Your task to perform on an android device: Open Google Chrome and click the shortcut for Amazon.com Image 0: 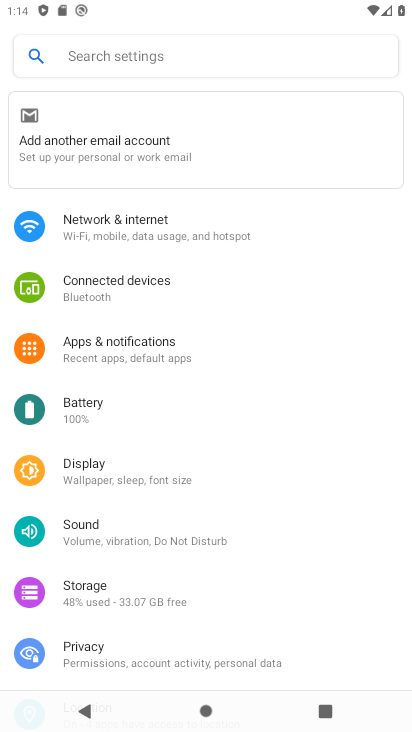
Step 0: press back button
Your task to perform on an android device: Open Google Chrome and click the shortcut for Amazon.com Image 1: 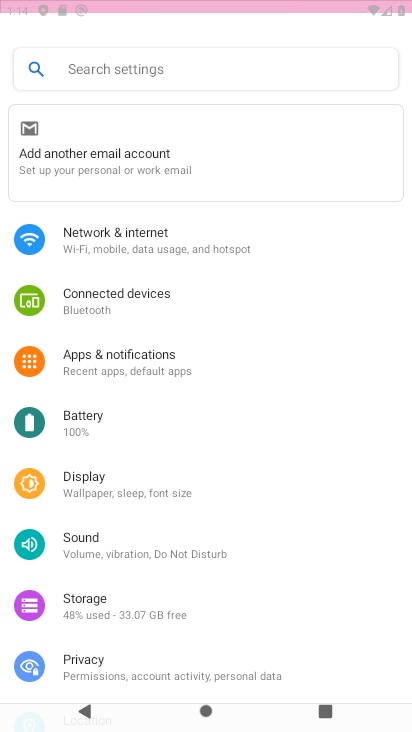
Step 1: press home button
Your task to perform on an android device: Open Google Chrome and click the shortcut for Amazon.com Image 2: 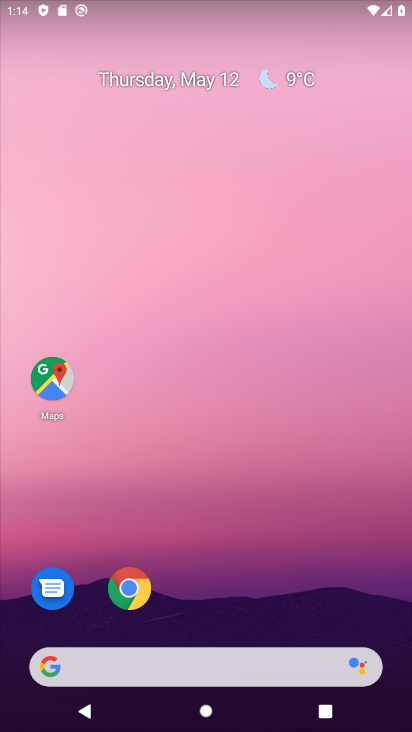
Step 2: click (138, 592)
Your task to perform on an android device: Open Google Chrome and click the shortcut for Amazon.com Image 3: 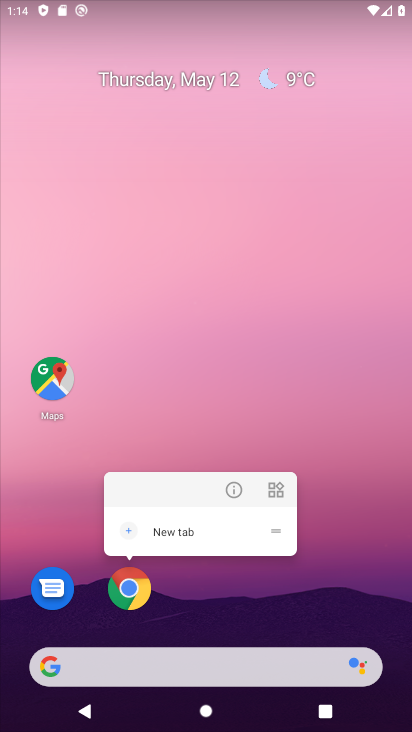
Step 3: click (138, 592)
Your task to perform on an android device: Open Google Chrome and click the shortcut for Amazon.com Image 4: 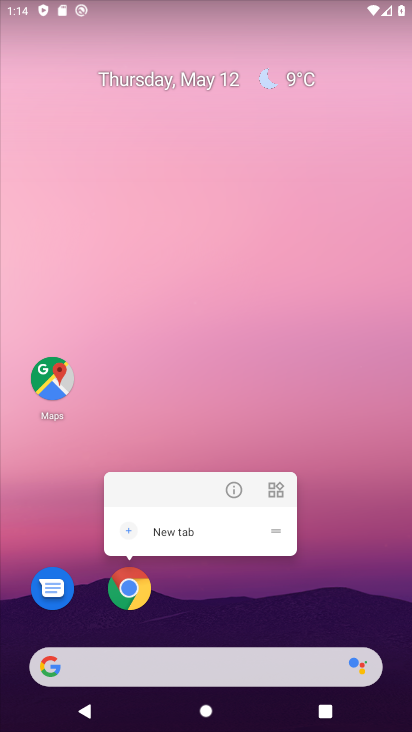
Step 4: click (138, 592)
Your task to perform on an android device: Open Google Chrome and click the shortcut for Amazon.com Image 5: 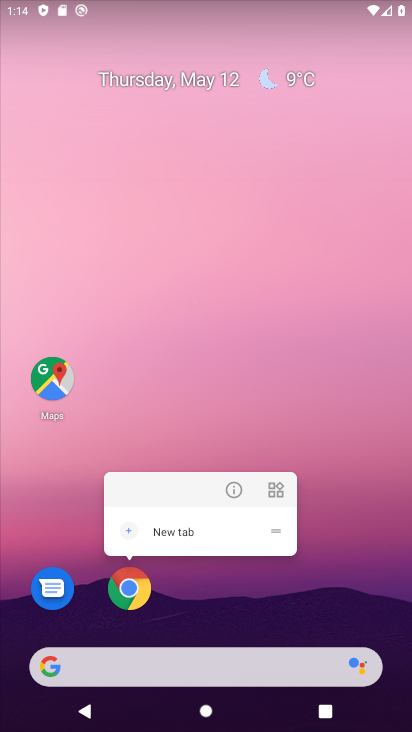
Step 5: click (134, 587)
Your task to perform on an android device: Open Google Chrome and click the shortcut for Amazon.com Image 6: 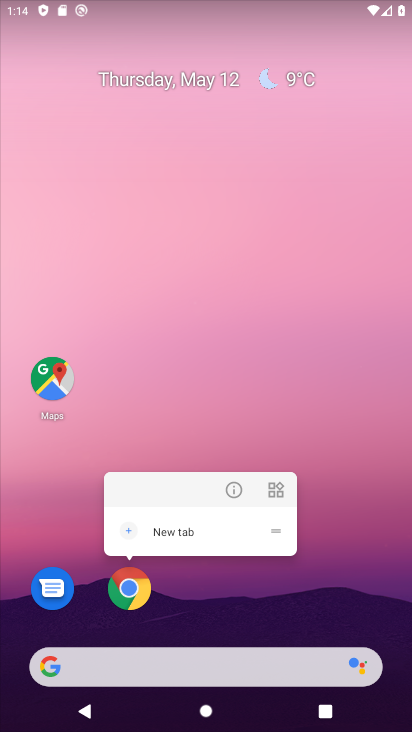
Step 6: click (134, 587)
Your task to perform on an android device: Open Google Chrome and click the shortcut for Amazon.com Image 7: 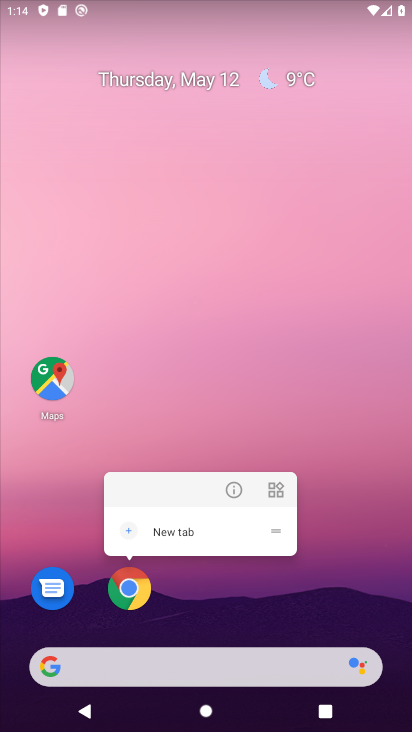
Step 7: click (123, 599)
Your task to perform on an android device: Open Google Chrome and click the shortcut for Amazon.com Image 8: 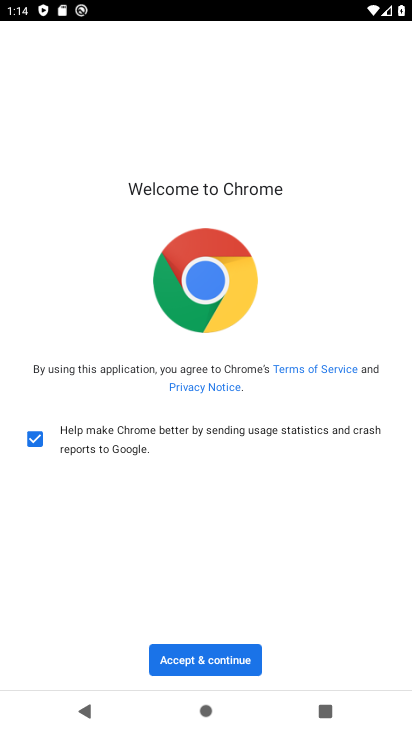
Step 8: click (243, 663)
Your task to perform on an android device: Open Google Chrome and click the shortcut for Amazon.com Image 9: 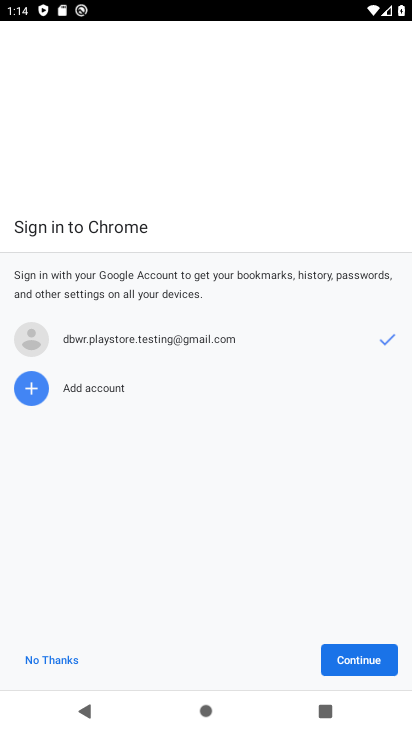
Step 9: click (359, 660)
Your task to perform on an android device: Open Google Chrome and click the shortcut for Amazon.com Image 10: 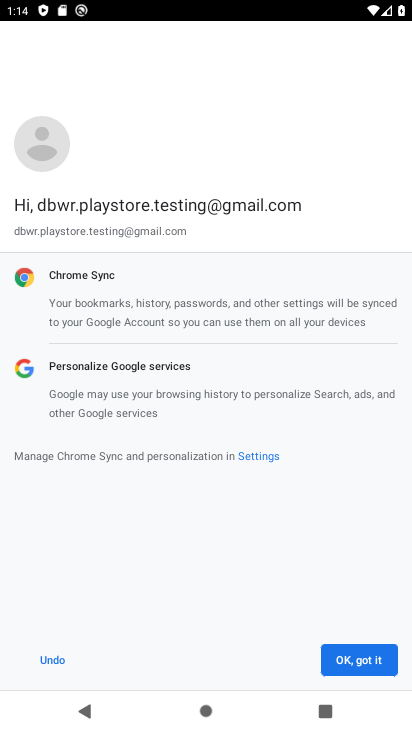
Step 10: click (359, 660)
Your task to perform on an android device: Open Google Chrome and click the shortcut for Amazon.com Image 11: 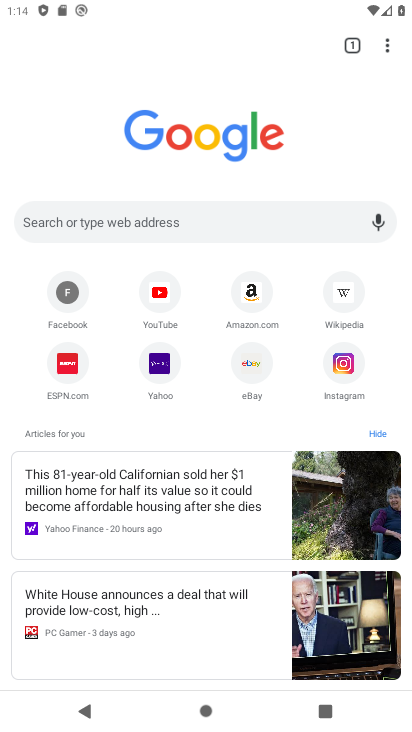
Step 11: click (245, 296)
Your task to perform on an android device: Open Google Chrome and click the shortcut for Amazon.com Image 12: 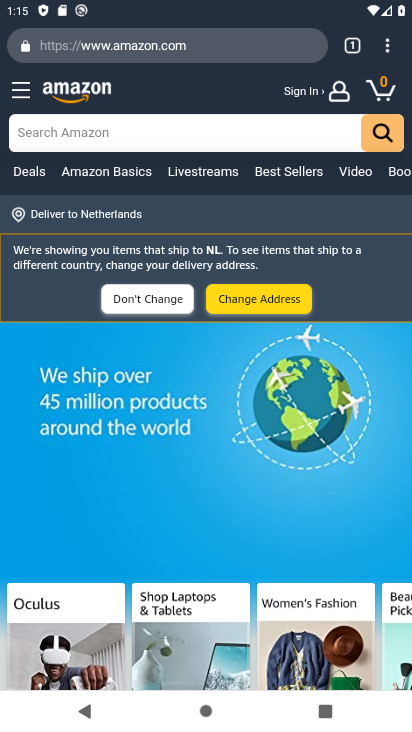
Step 12: task complete